Your task to perform on an android device: Find coffee shops on Maps Image 0: 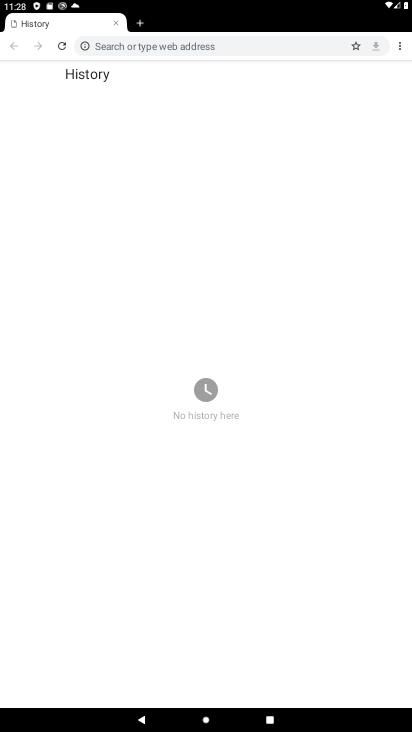
Step 0: press home button
Your task to perform on an android device: Find coffee shops on Maps Image 1: 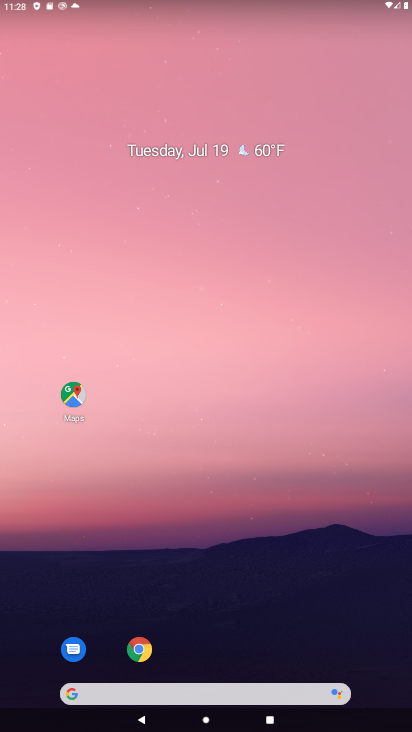
Step 1: click (77, 397)
Your task to perform on an android device: Find coffee shops on Maps Image 2: 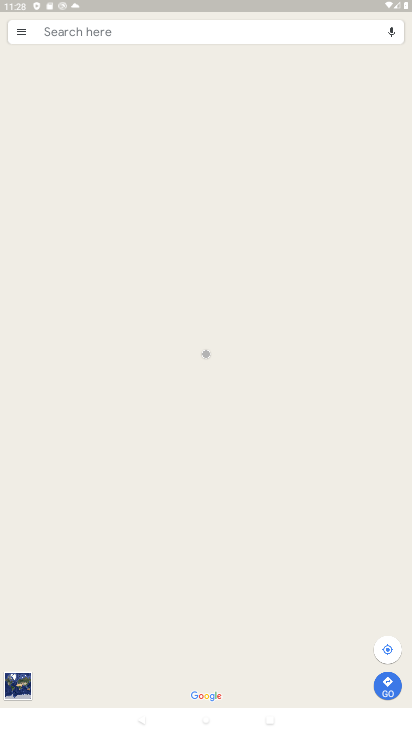
Step 2: click (145, 39)
Your task to perform on an android device: Find coffee shops on Maps Image 3: 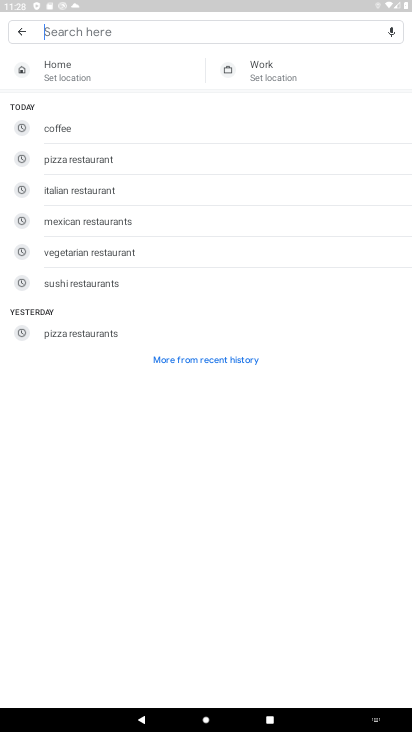
Step 3: type "coffee shops"
Your task to perform on an android device: Find coffee shops on Maps Image 4: 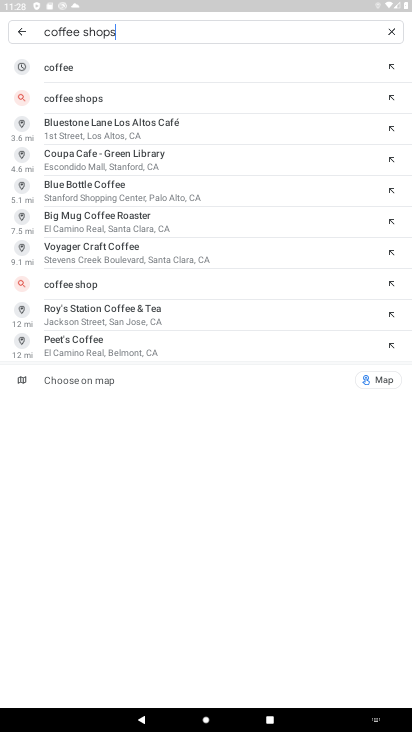
Step 4: click (77, 105)
Your task to perform on an android device: Find coffee shops on Maps Image 5: 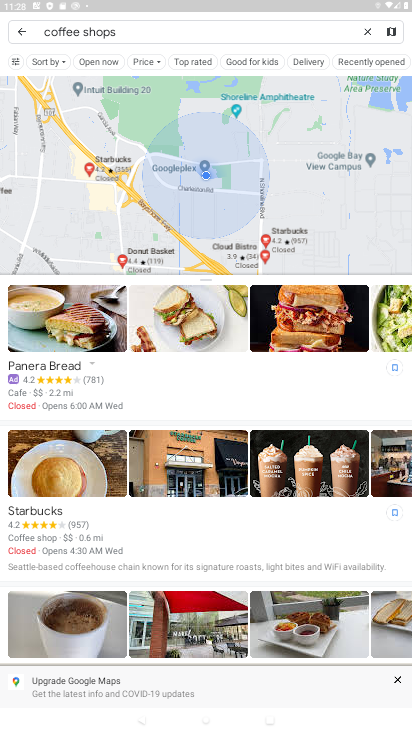
Step 5: task complete